Your task to perform on an android device: delete the emails in spam in the gmail app Image 0: 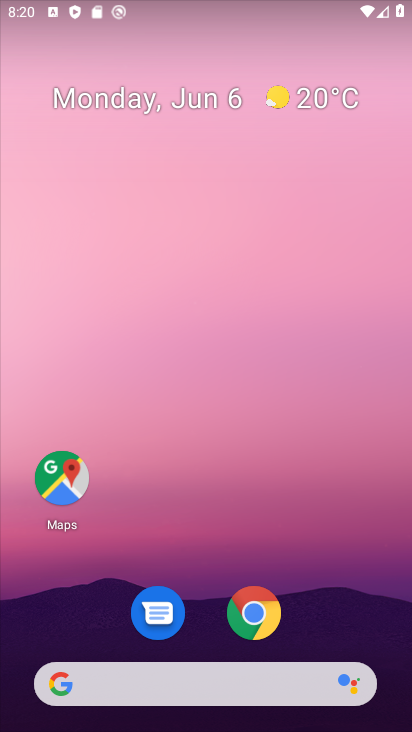
Step 0: click (308, 44)
Your task to perform on an android device: delete the emails in spam in the gmail app Image 1: 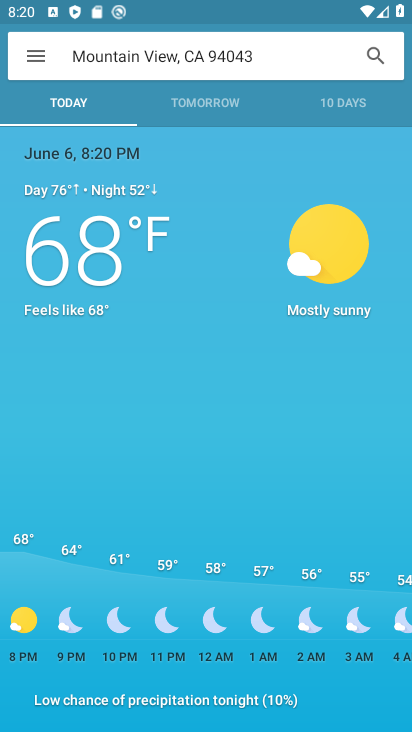
Step 1: press back button
Your task to perform on an android device: delete the emails in spam in the gmail app Image 2: 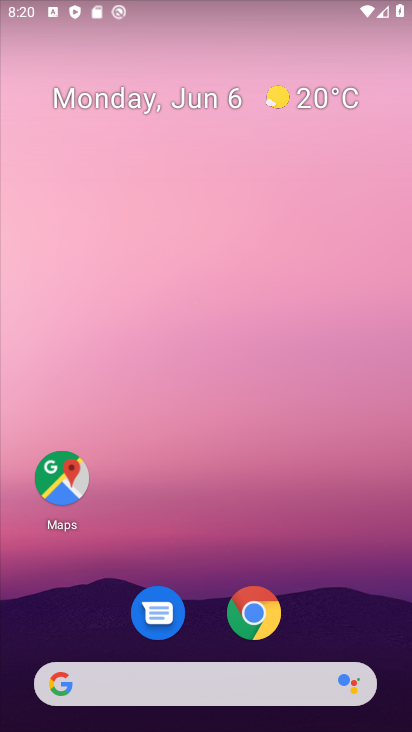
Step 2: drag from (294, 245) to (287, 123)
Your task to perform on an android device: delete the emails in spam in the gmail app Image 3: 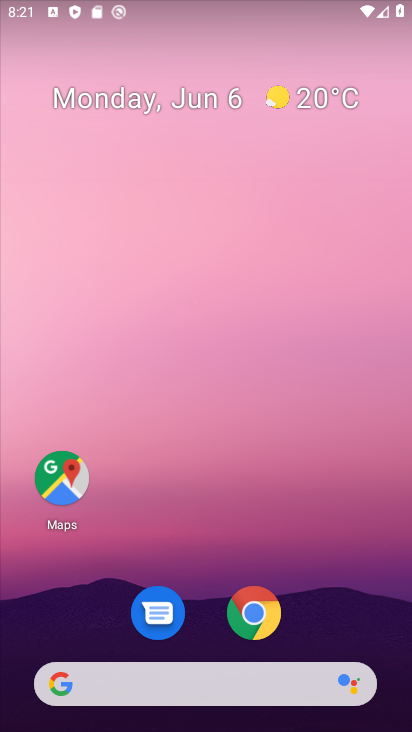
Step 3: drag from (399, 717) to (323, 25)
Your task to perform on an android device: delete the emails in spam in the gmail app Image 4: 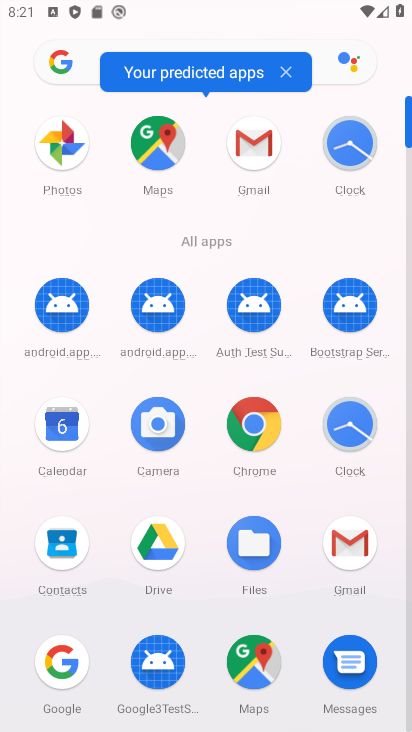
Step 4: click (358, 530)
Your task to perform on an android device: delete the emails in spam in the gmail app Image 5: 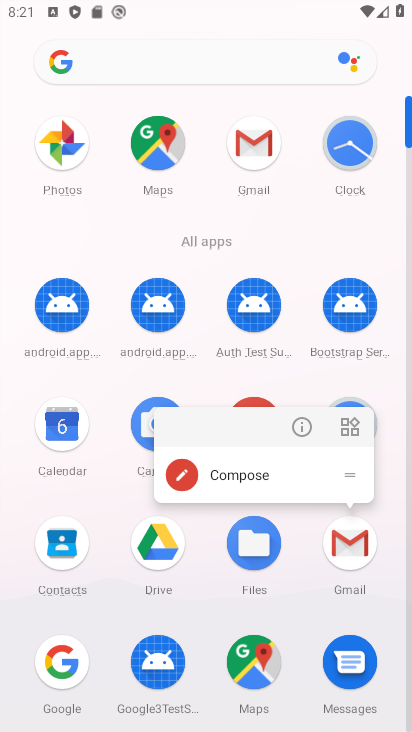
Step 5: click (349, 549)
Your task to perform on an android device: delete the emails in spam in the gmail app Image 6: 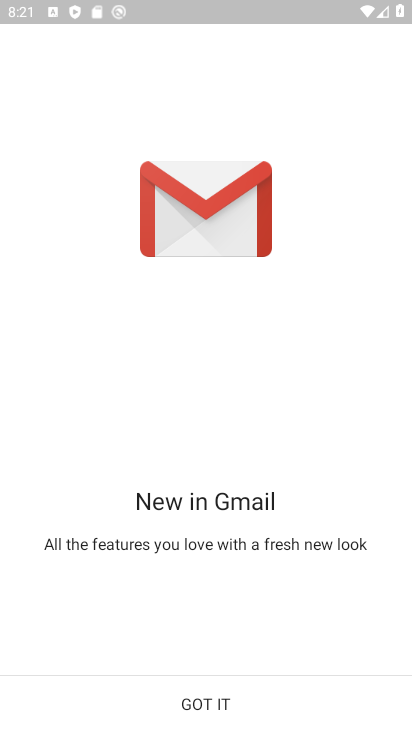
Step 6: click (193, 704)
Your task to perform on an android device: delete the emails in spam in the gmail app Image 7: 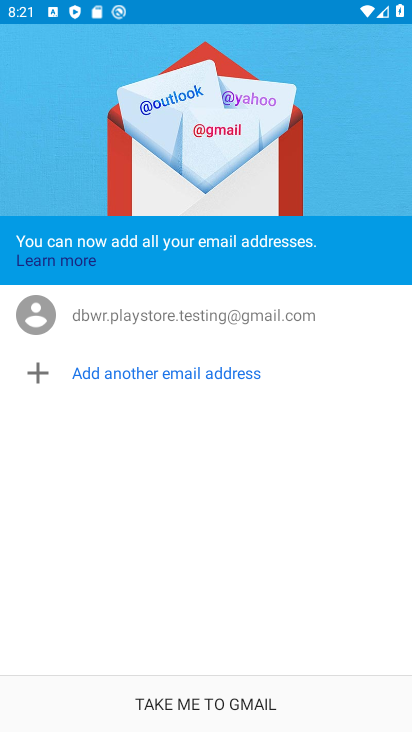
Step 7: click (219, 700)
Your task to perform on an android device: delete the emails in spam in the gmail app Image 8: 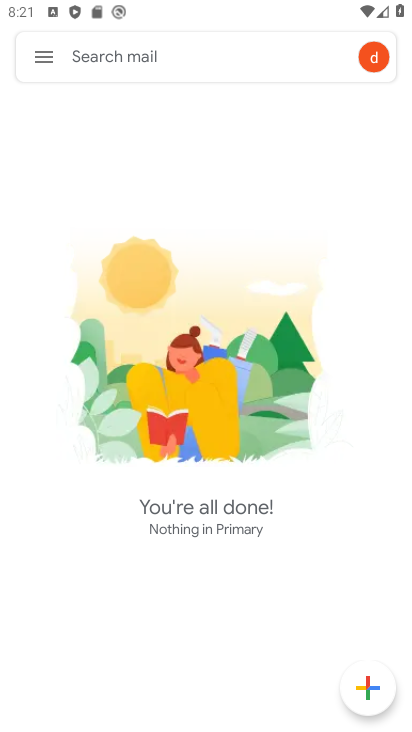
Step 8: click (48, 57)
Your task to perform on an android device: delete the emails in spam in the gmail app Image 9: 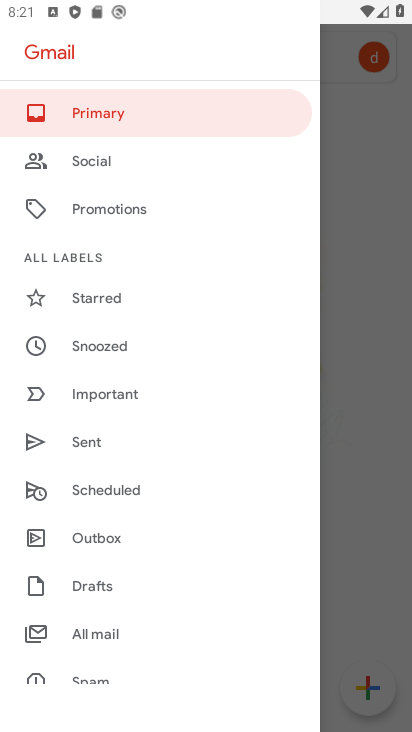
Step 9: task complete